Your task to perform on an android device: Open location settings Image 0: 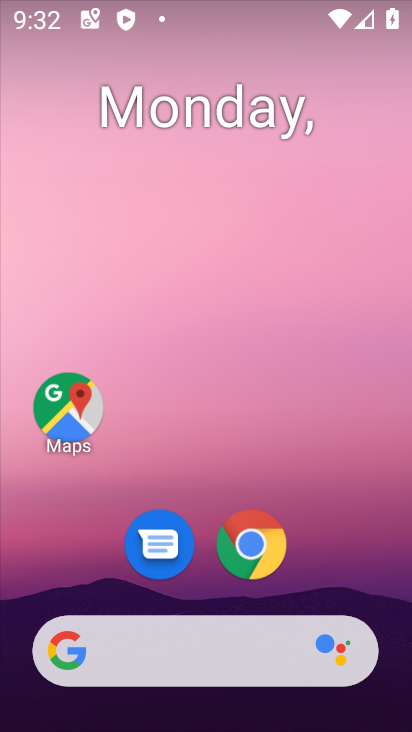
Step 0: drag from (200, 468) to (143, 0)
Your task to perform on an android device: Open location settings Image 1: 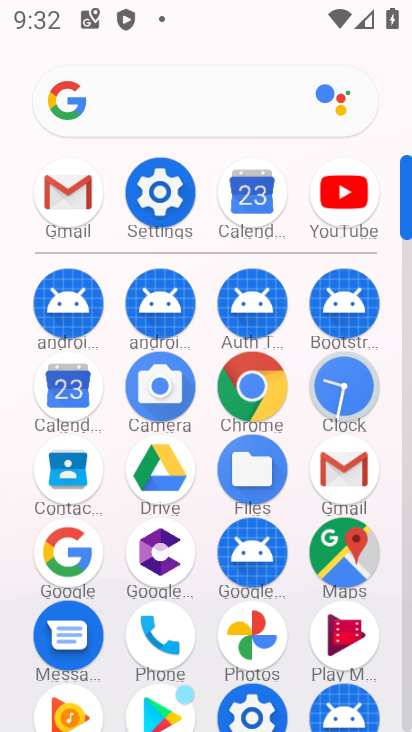
Step 1: click (162, 201)
Your task to perform on an android device: Open location settings Image 2: 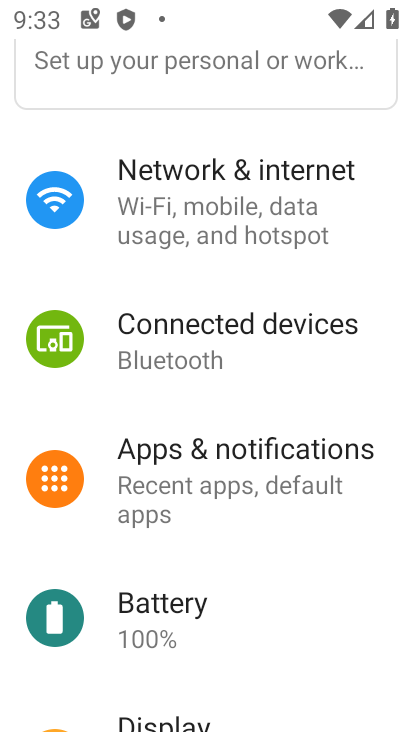
Step 2: drag from (259, 574) to (217, 182)
Your task to perform on an android device: Open location settings Image 3: 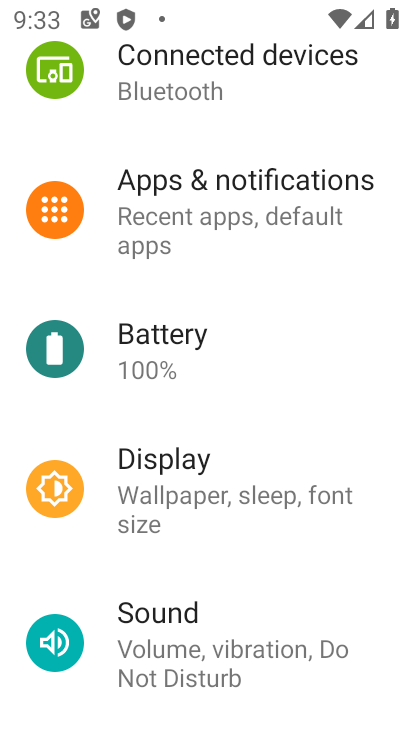
Step 3: drag from (215, 530) to (190, 145)
Your task to perform on an android device: Open location settings Image 4: 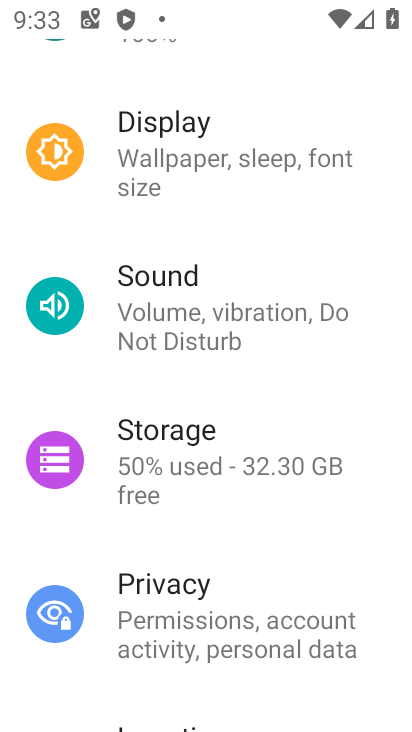
Step 4: drag from (184, 478) to (174, 244)
Your task to perform on an android device: Open location settings Image 5: 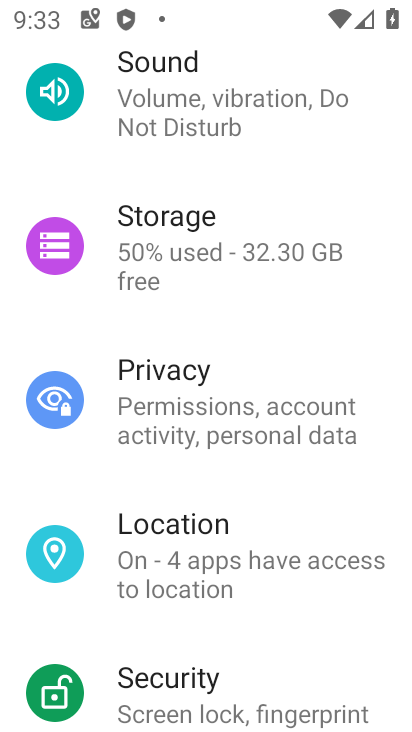
Step 5: click (171, 531)
Your task to perform on an android device: Open location settings Image 6: 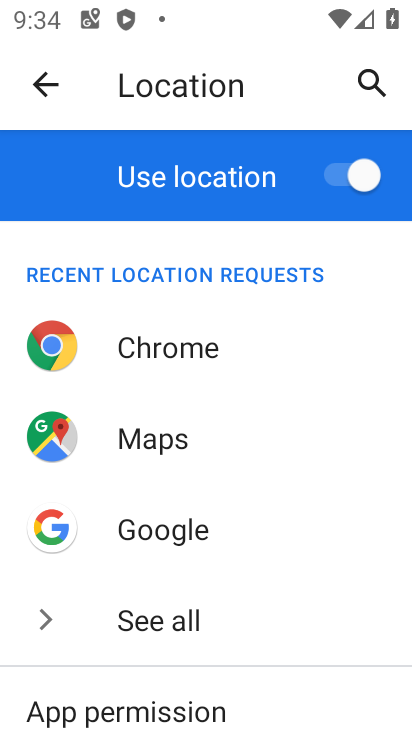
Step 6: task complete